Your task to perform on an android device: change timer sound Image 0: 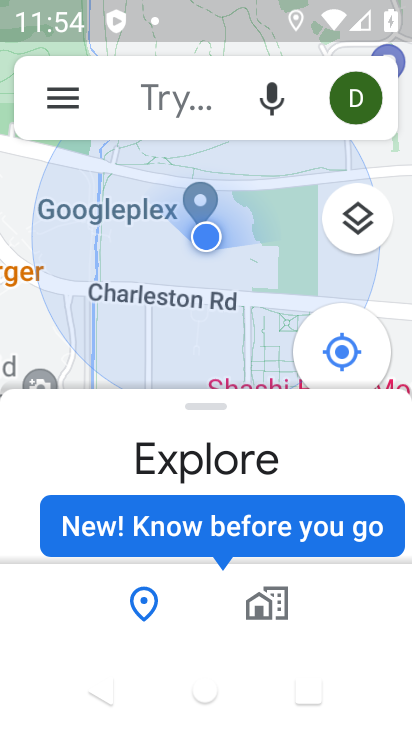
Step 0: press home button
Your task to perform on an android device: change timer sound Image 1: 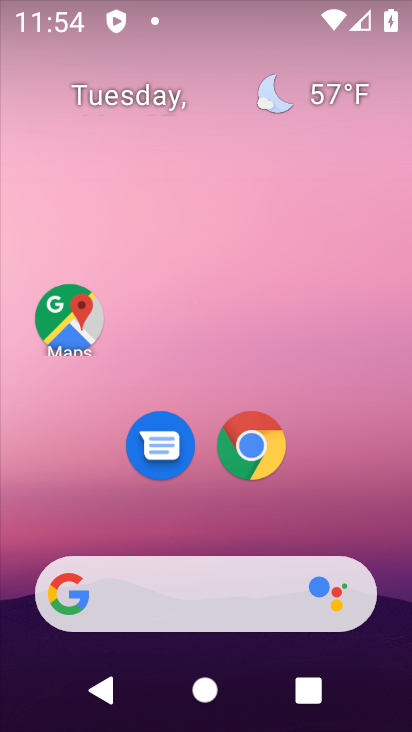
Step 1: drag from (358, 501) to (305, 121)
Your task to perform on an android device: change timer sound Image 2: 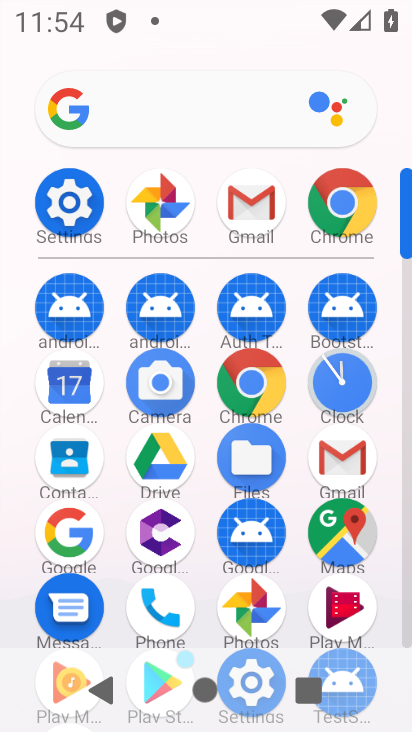
Step 2: click (331, 386)
Your task to perform on an android device: change timer sound Image 3: 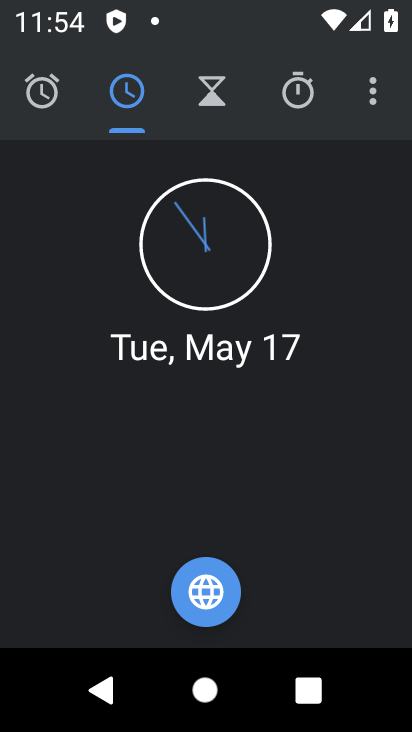
Step 3: click (374, 92)
Your task to perform on an android device: change timer sound Image 4: 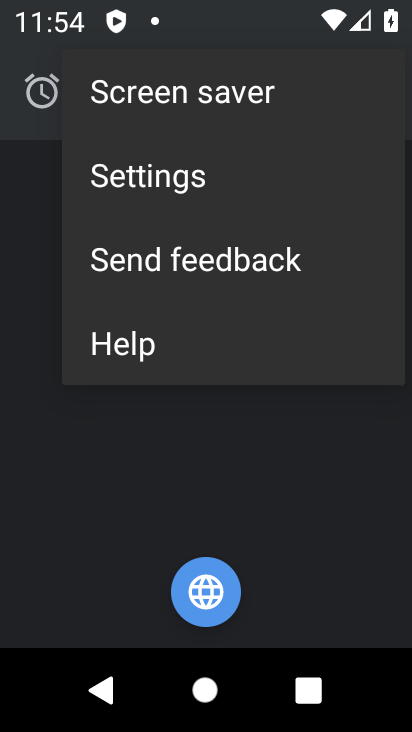
Step 4: click (102, 175)
Your task to perform on an android device: change timer sound Image 5: 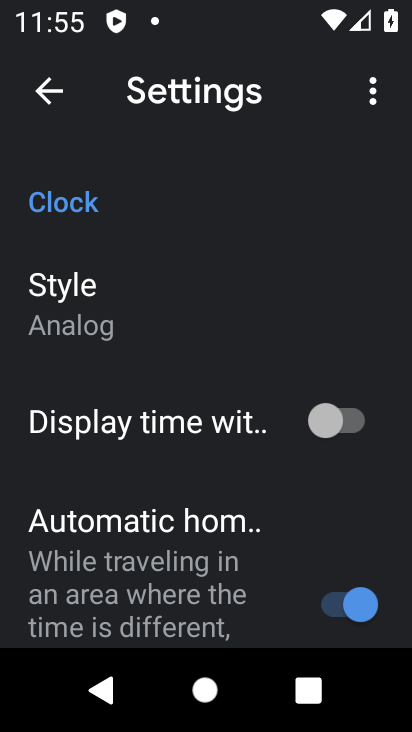
Step 5: drag from (266, 547) to (254, 245)
Your task to perform on an android device: change timer sound Image 6: 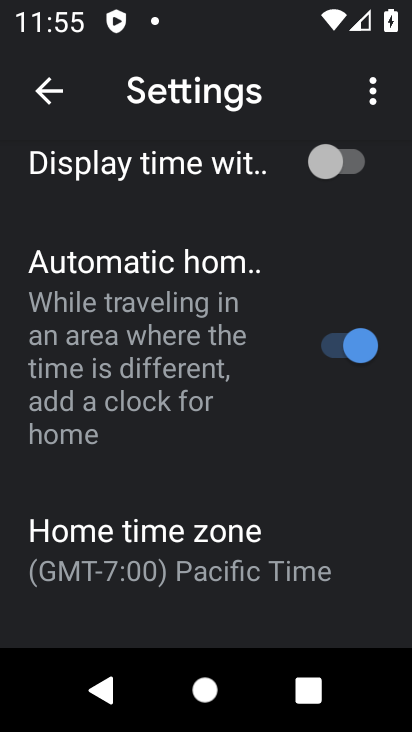
Step 6: drag from (241, 564) to (263, 317)
Your task to perform on an android device: change timer sound Image 7: 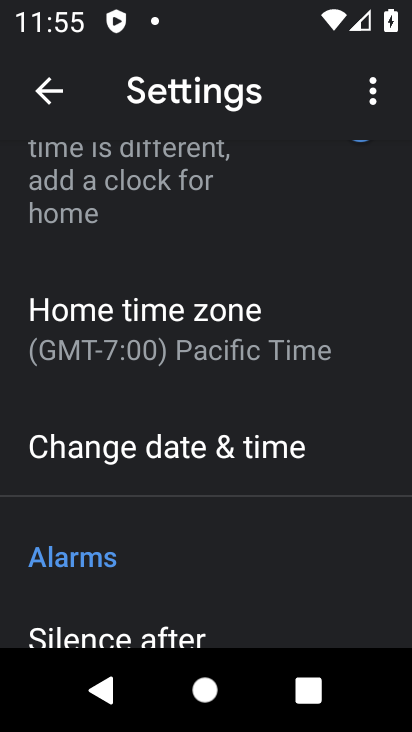
Step 7: drag from (242, 558) to (264, 348)
Your task to perform on an android device: change timer sound Image 8: 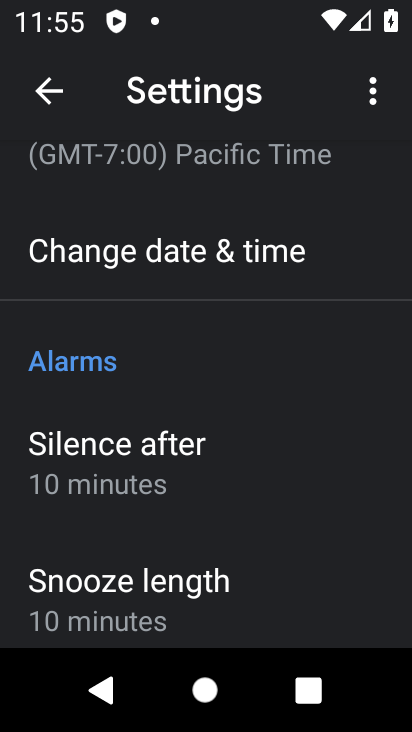
Step 8: drag from (307, 566) to (326, 386)
Your task to perform on an android device: change timer sound Image 9: 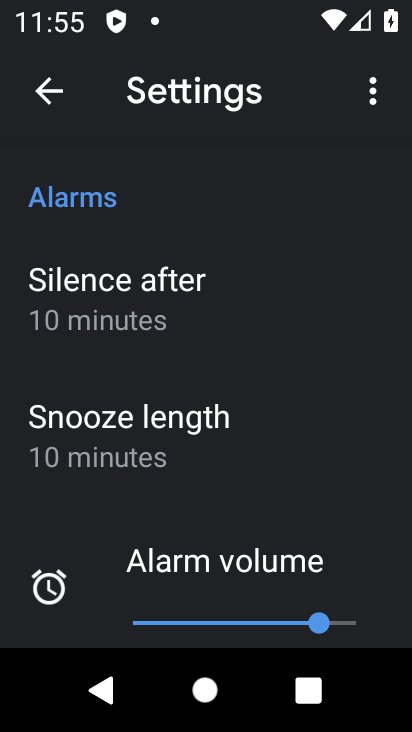
Step 9: drag from (303, 559) to (313, 367)
Your task to perform on an android device: change timer sound Image 10: 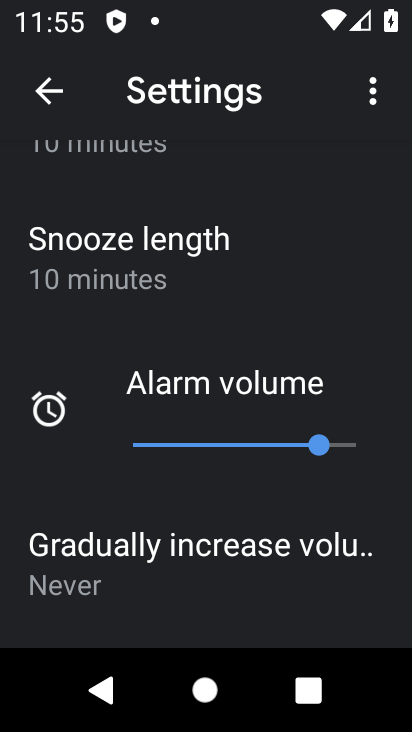
Step 10: drag from (315, 555) to (316, 322)
Your task to perform on an android device: change timer sound Image 11: 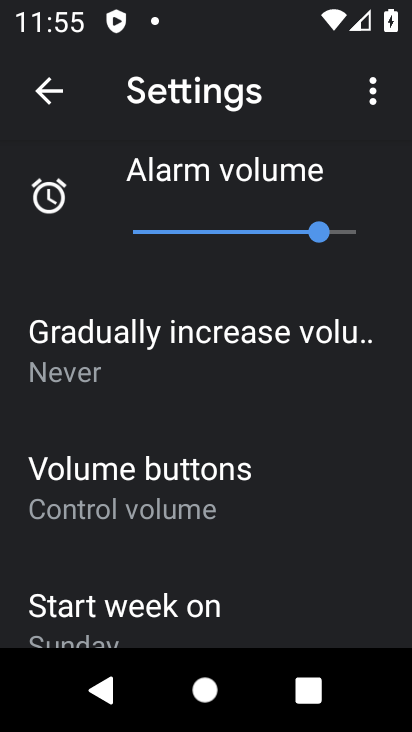
Step 11: drag from (296, 556) to (303, 371)
Your task to perform on an android device: change timer sound Image 12: 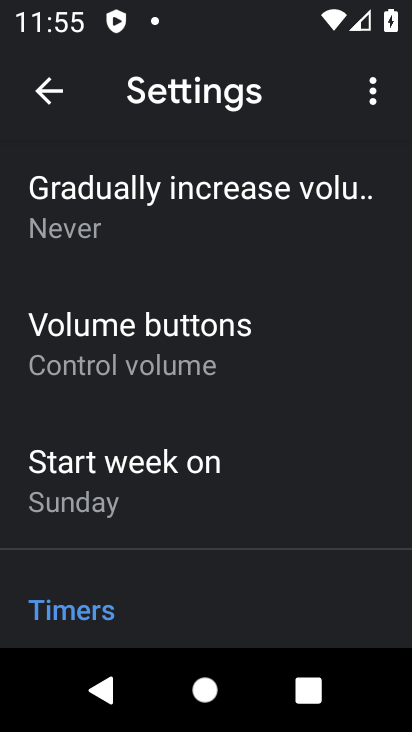
Step 12: drag from (289, 561) to (297, 408)
Your task to perform on an android device: change timer sound Image 13: 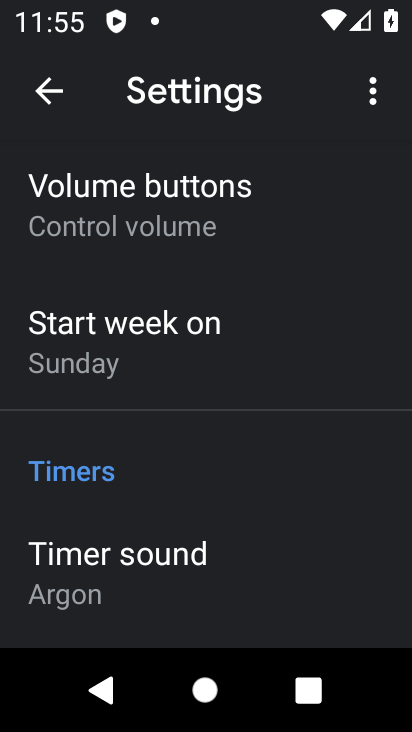
Step 13: click (153, 586)
Your task to perform on an android device: change timer sound Image 14: 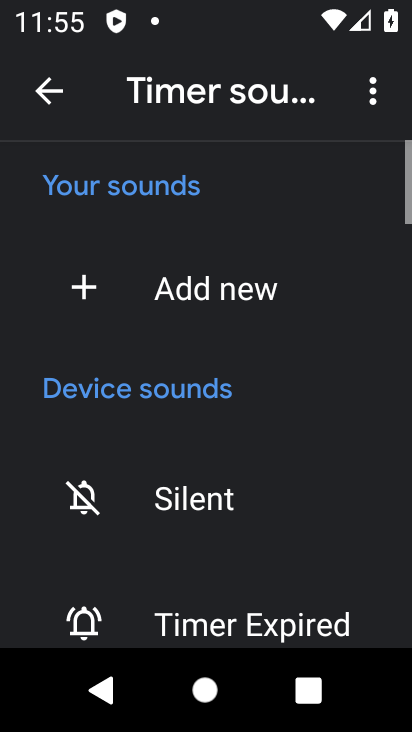
Step 14: click (210, 513)
Your task to perform on an android device: change timer sound Image 15: 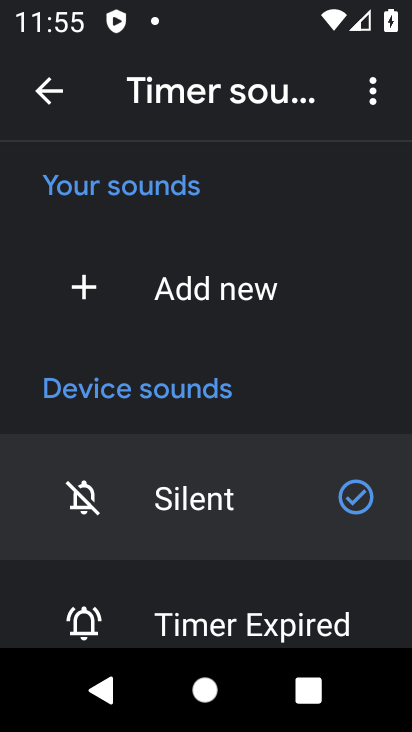
Step 15: task complete